Your task to perform on an android device: Open accessibility settings Image 0: 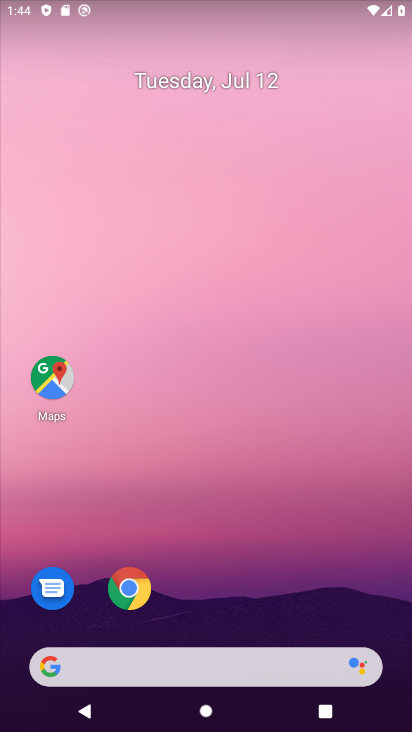
Step 0: drag from (205, 2) to (209, 516)
Your task to perform on an android device: Open accessibility settings Image 1: 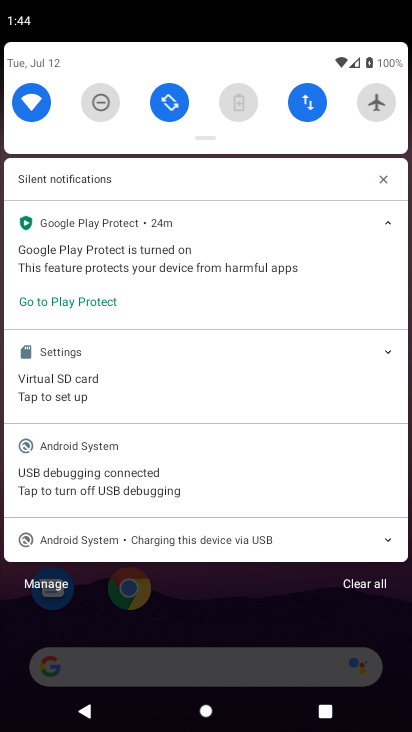
Step 1: drag from (265, 73) to (304, 576)
Your task to perform on an android device: Open accessibility settings Image 2: 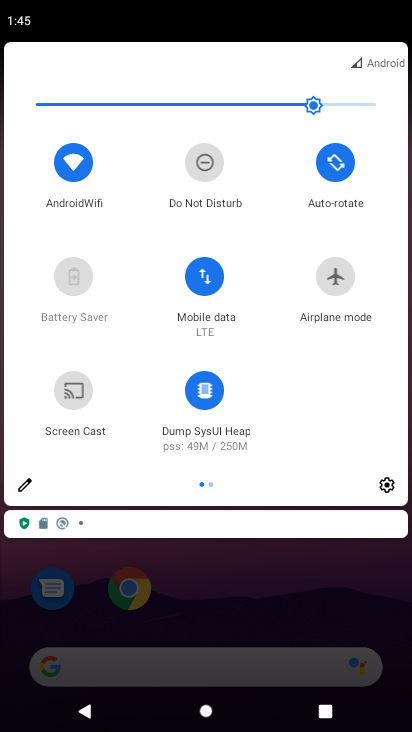
Step 2: click (385, 479)
Your task to perform on an android device: Open accessibility settings Image 3: 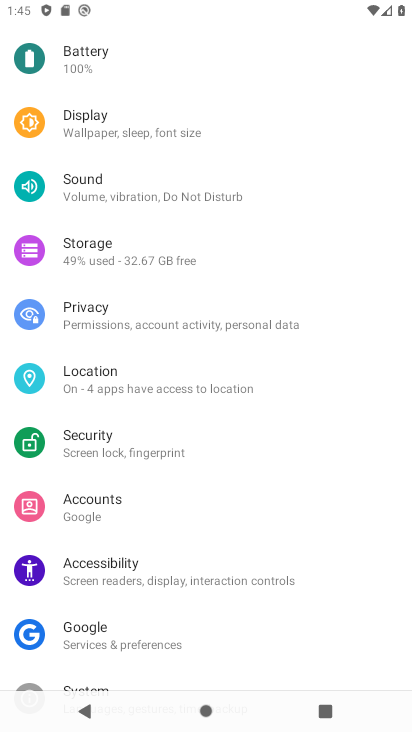
Step 3: drag from (171, 262) to (166, 226)
Your task to perform on an android device: Open accessibility settings Image 4: 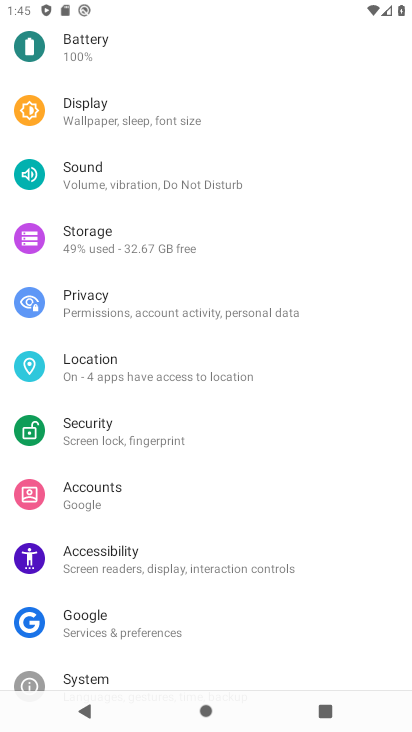
Step 4: click (188, 572)
Your task to perform on an android device: Open accessibility settings Image 5: 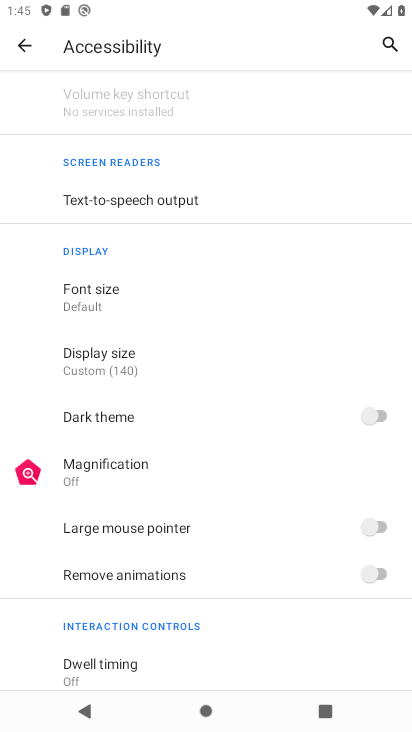
Step 5: task complete